Your task to perform on an android device: Go to sound settings Image 0: 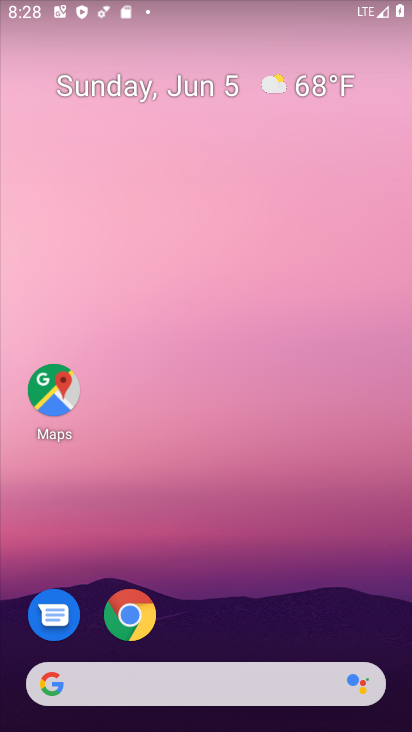
Step 0: drag from (281, 687) to (230, 61)
Your task to perform on an android device: Go to sound settings Image 1: 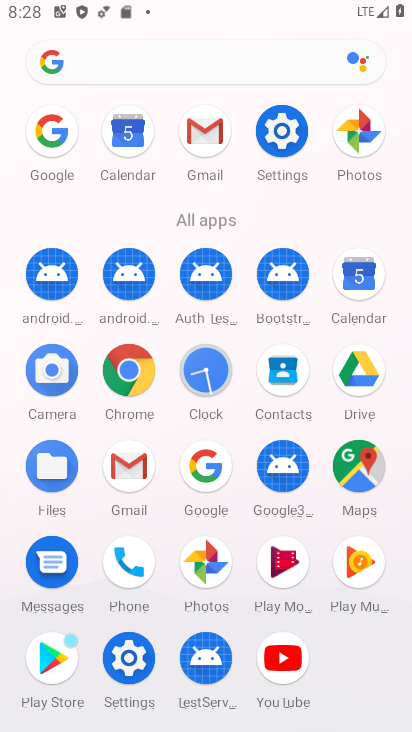
Step 1: click (268, 136)
Your task to perform on an android device: Go to sound settings Image 2: 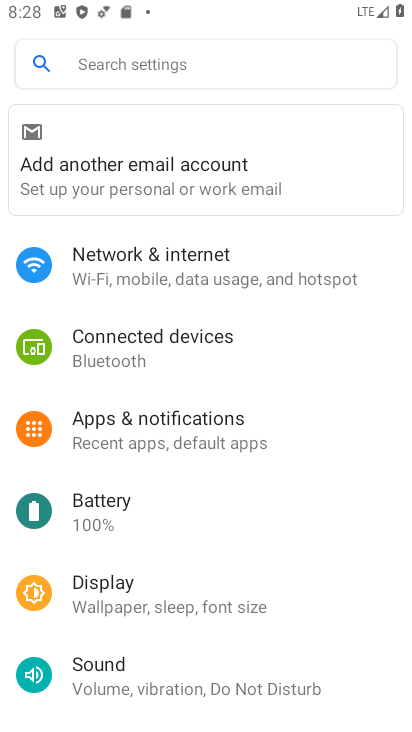
Step 2: click (143, 680)
Your task to perform on an android device: Go to sound settings Image 3: 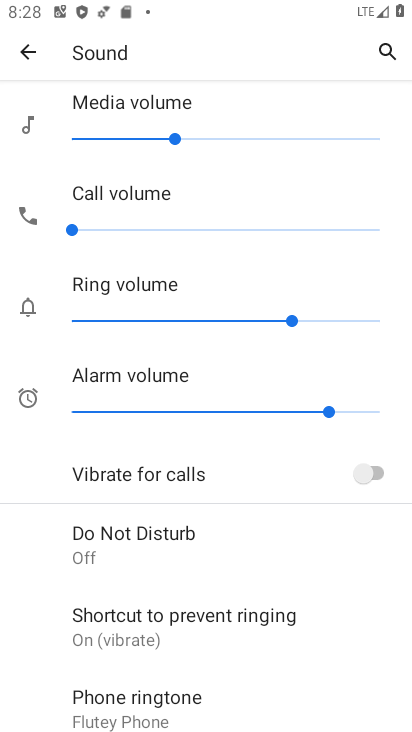
Step 3: task complete